Your task to perform on an android device: Show me popular games on the Play Store Image 0: 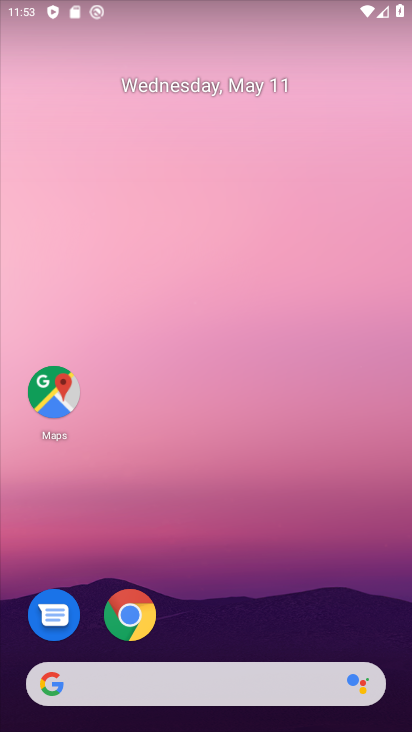
Step 0: drag from (325, 602) to (279, 30)
Your task to perform on an android device: Show me popular games on the Play Store Image 1: 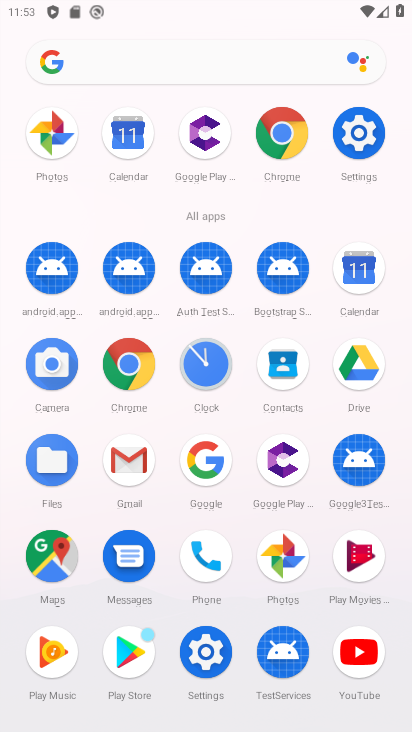
Step 1: click (144, 642)
Your task to perform on an android device: Show me popular games on the Play Store Image 2: 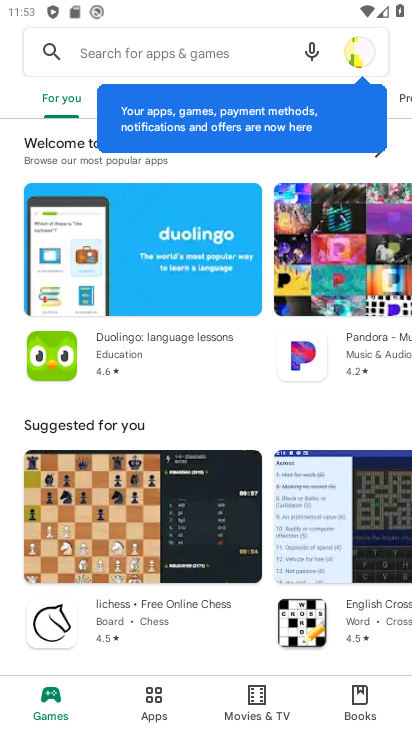
Step 2: click (175, 53)
Your task to perform on an android device: Show me popular games on the Play Store Image 3: 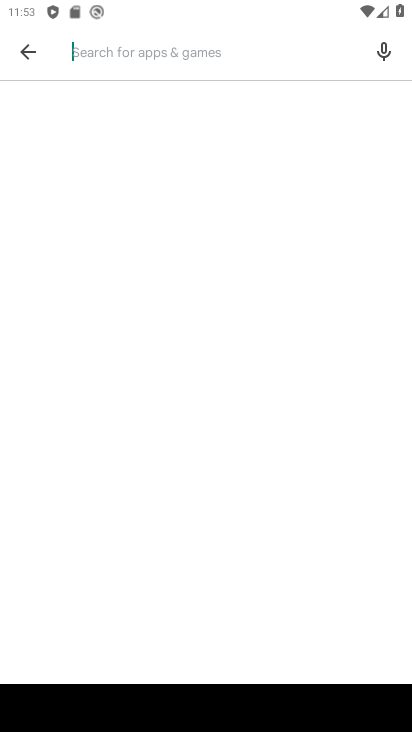
Step 3: type "popular games"
Your task to perform on an android device: Show me popular games on the Play Store Image 4: 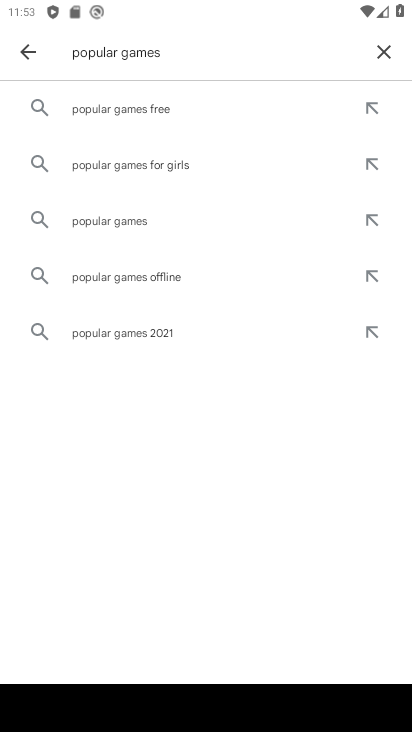
Step 4: press enter
Your task to perform on an android device: Show me popular games on the Play Store Image 5: 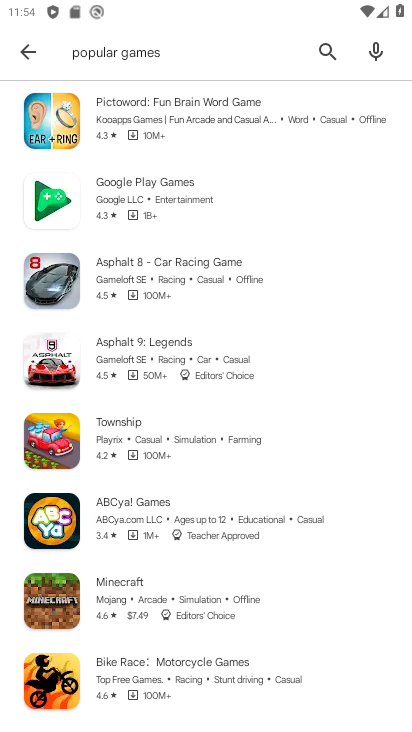
Step 5: task complete